Your task to perform on an android device: turn notification dots on Image 0: 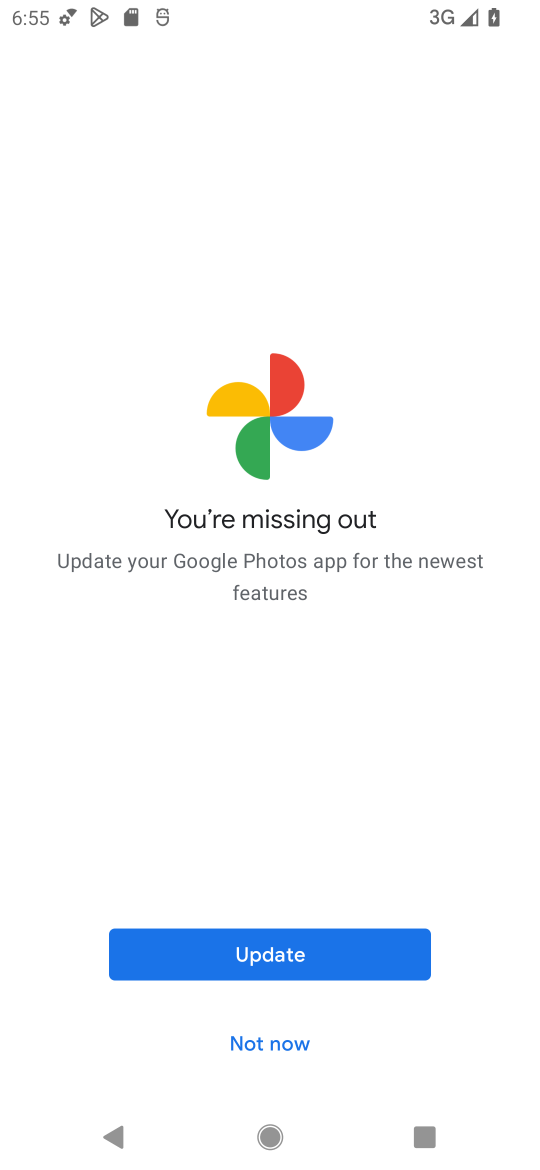
Step 0: click (271, 1131)
Your task to perform on an android device: turn notification dots on Image 1: 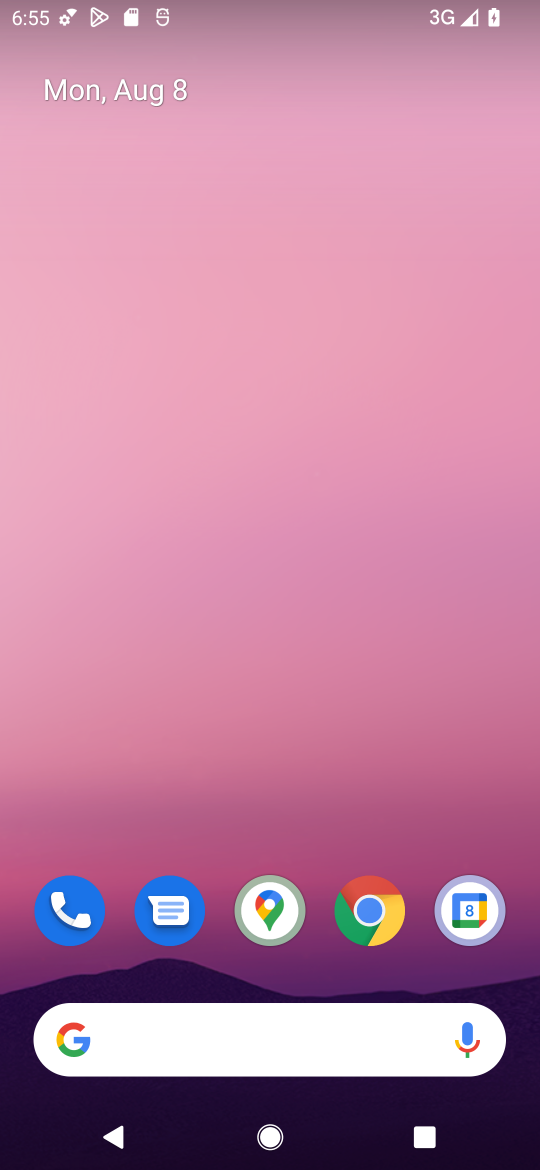
Step 1: drag from (317, 877) to (249, 20)
Your task to perform on an android device: turn notification dots on Image 2: 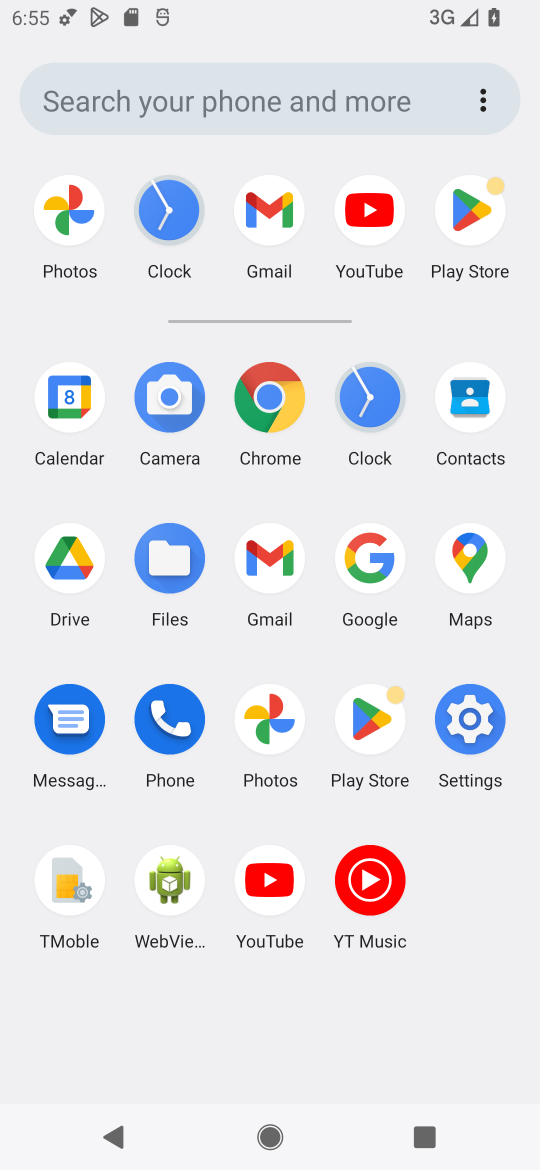
Step 2: click (477, 721)
Your task to perform on an android device: turn notification dots on Image 3: 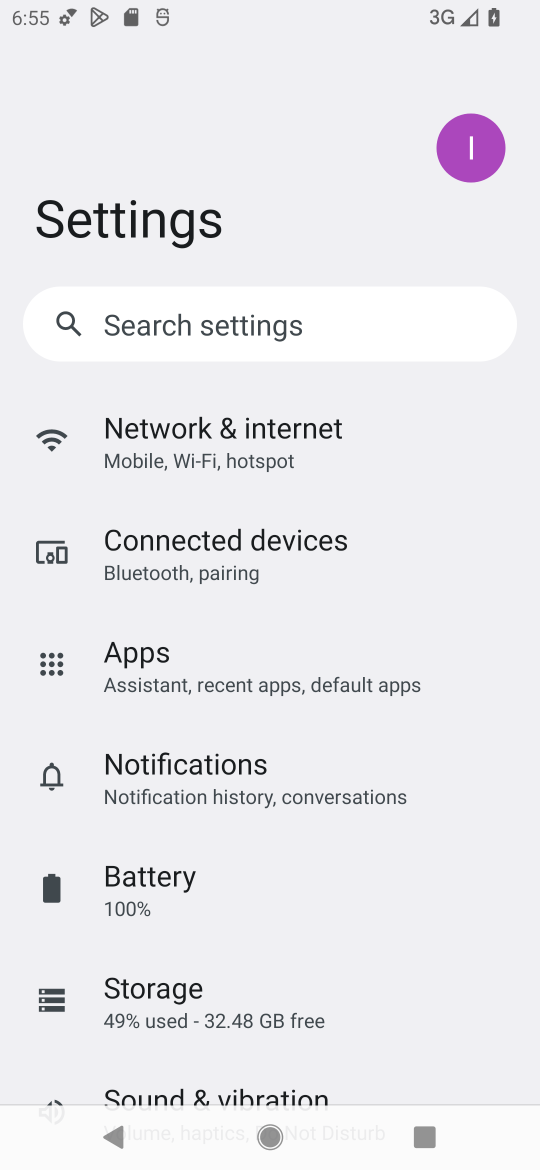
Step 3: click (266, 791)
Your task to perform on an android device: turn notification dots on Image 4: 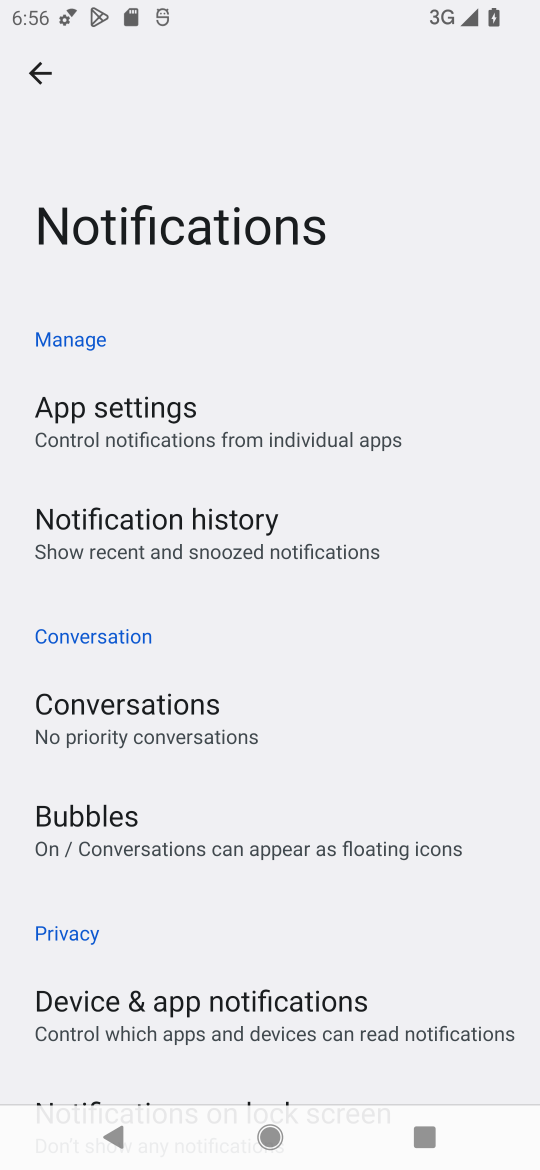
Step 4: task complete